Your task to perform on an android device: show emergency info Image 0: 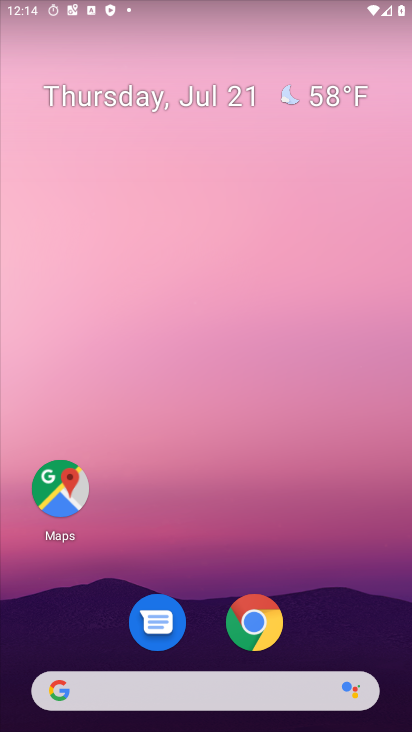
Step 0: drag from (27, 605) to (73, 424)
Your task to perform on an android device: show emergency info Image 1: 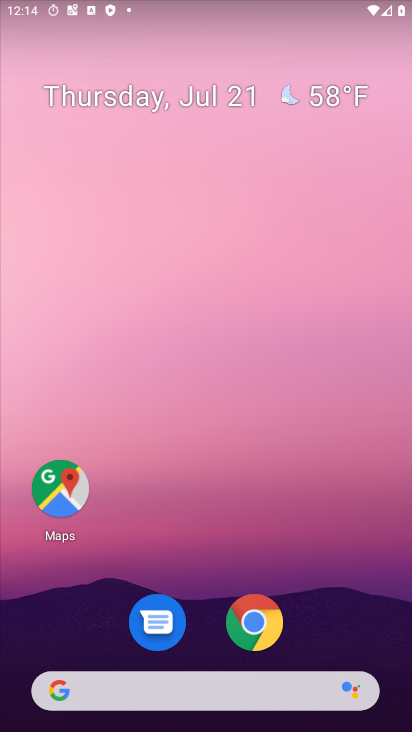
Step 1: drag from (84, 481) to (204, 79)
Your task to perform on an android device: show emergency info Image 2: 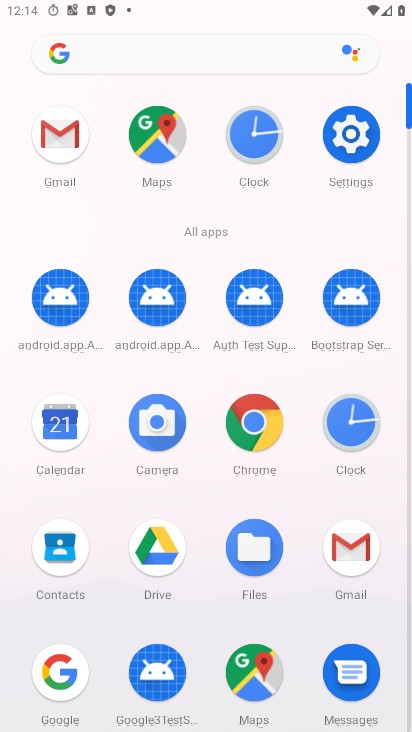
Step 2: drag from (254, 299) to (263, 25)
Your task to perform on an android device: show emergency info Image 3: 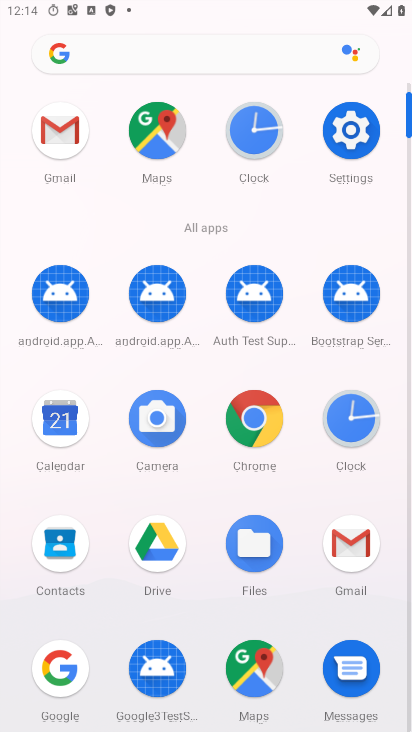
Step 3: drag from (158, 383) to (202, 123)
Your task to perform on an android device: show emergency info Image 4: 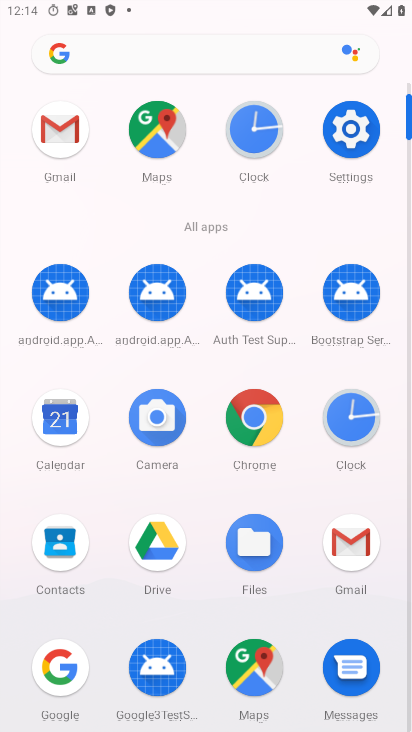
Step 4: drag from (136, 592) to (195, 251)
Your task to perform on an android device: show emergency info Image 5: 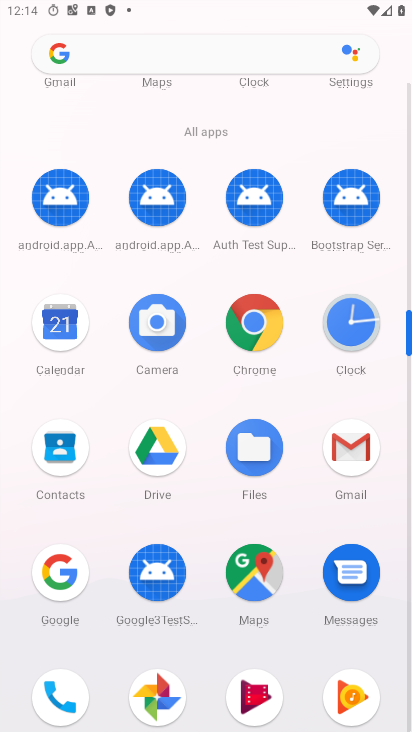
Step 5: drag from (352, 156) to (303, 731)
Your task to perform on an android device: show emergency info Image 6: 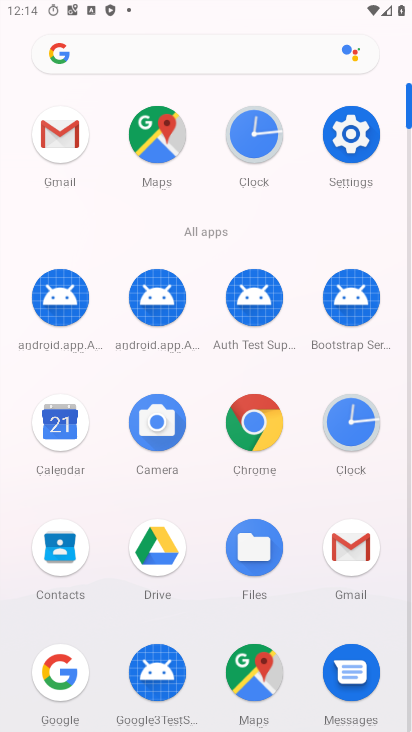
Step 6: click (360, 129)
Your task to perform on an android device: show emergency info Image 7: 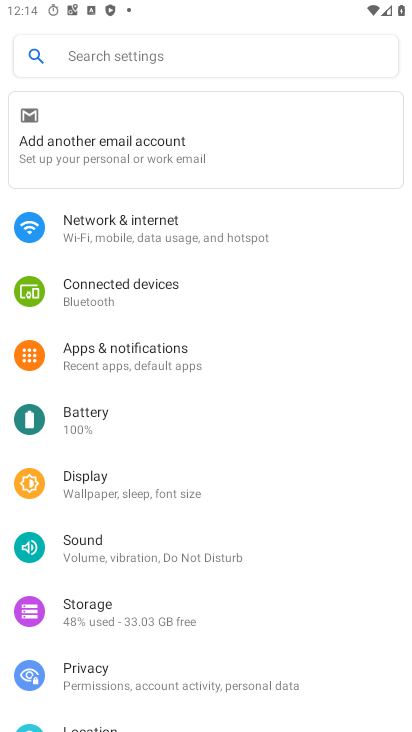
Step 7: click (159, 354)
Your task to perform on an android device: show emergency info Image 8: 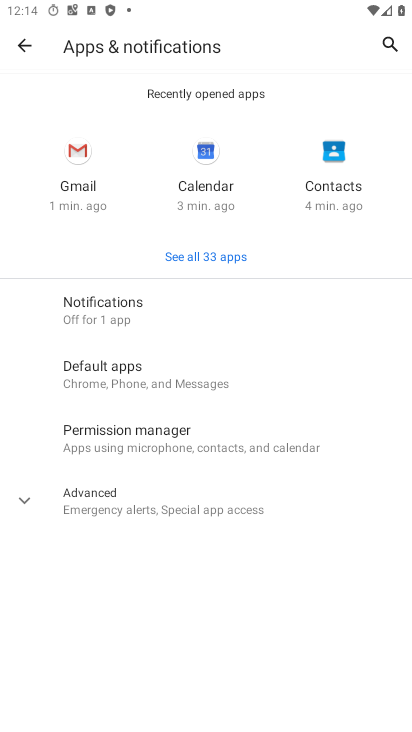
Step 8: click (122, 510)
Your task to perform on an android device: show emergency info Image 9: 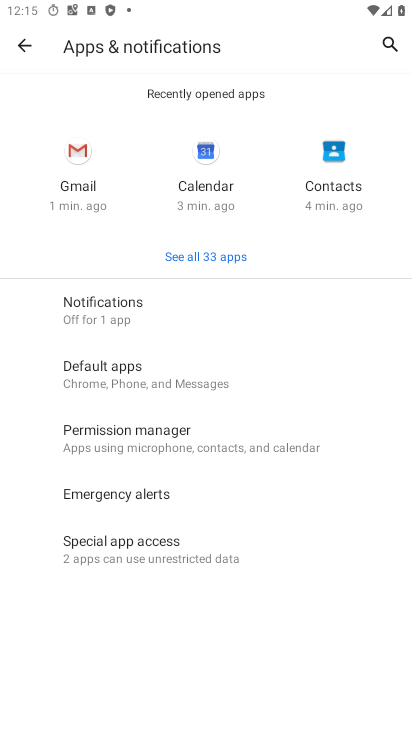
Step 9: click (104, 505)
Your task to perform on an android device: show emergency info Image 10: 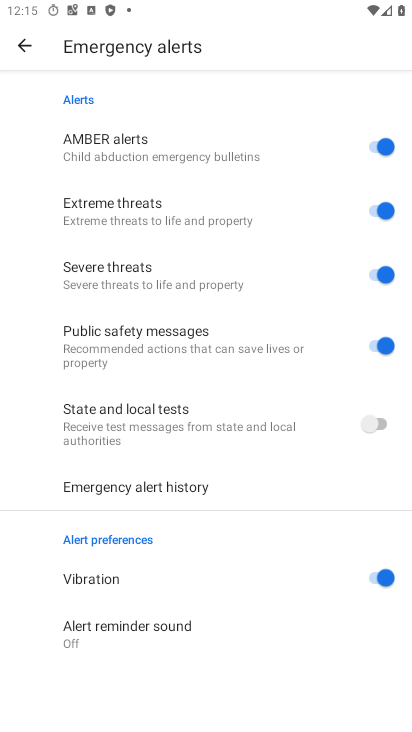
Step 10: task complete